Your task to perform on an android device: Open notification settings Image 0: 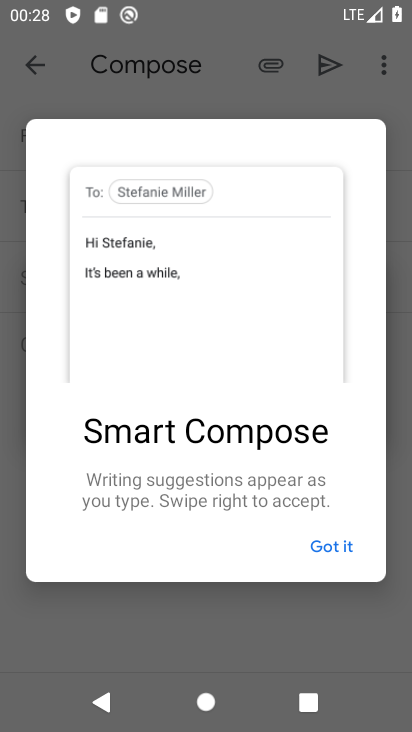
Step 0: drag from (129, 587) to (184, 324)
Your task to perform on an android device: Open notification settings Image 1: 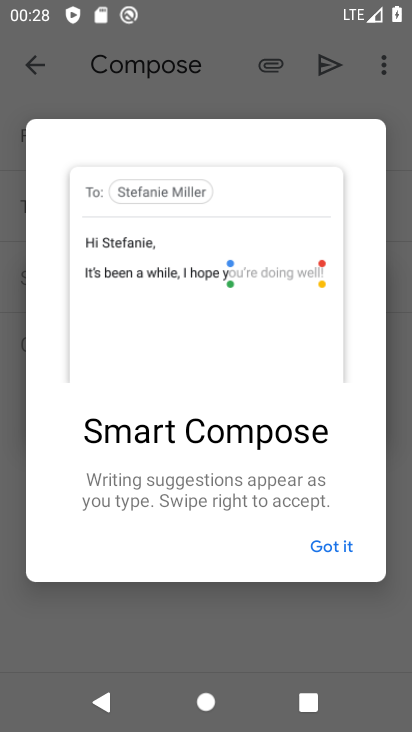
Step 1: press home button
Your task to perform on an android device: Open notification settings Image 2: 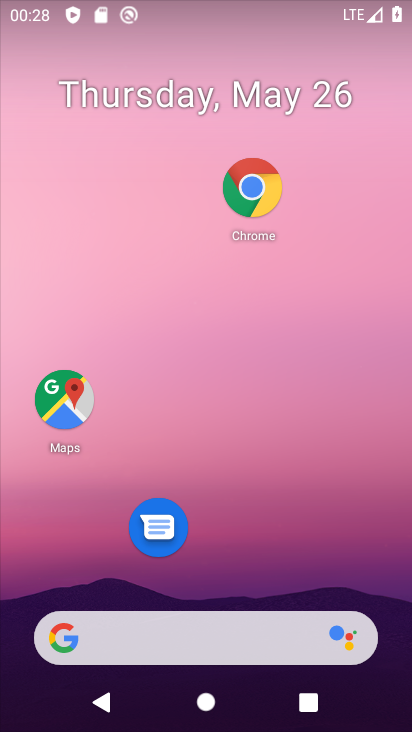
Step 2: drag from (220, 506) to (252, 30)
Your task to perform on an android device: Open notification settings Image 3: 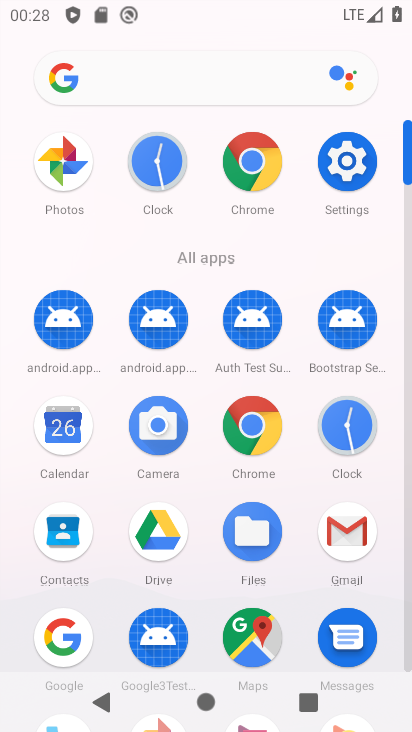
Step 3: click (363, 159)
Your task to perform on an android device: Open notification settings Image 4: 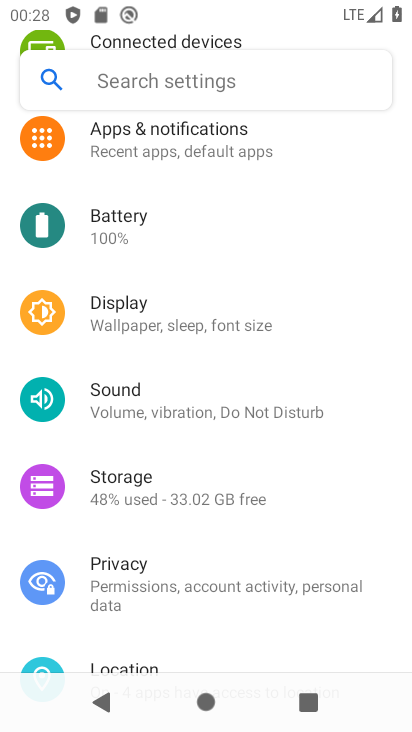
Step 4: click (273, 138)
Your task to perform on an android device: Open notification settings Image 5: 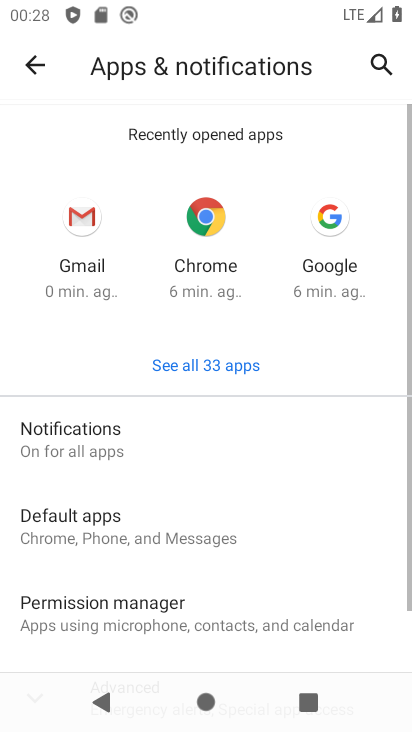
Step 5: task complete